Your task to perform on an android device: open app "Adobe Acrobat Reader" (install if not already installed) and go to login screen Image 0: 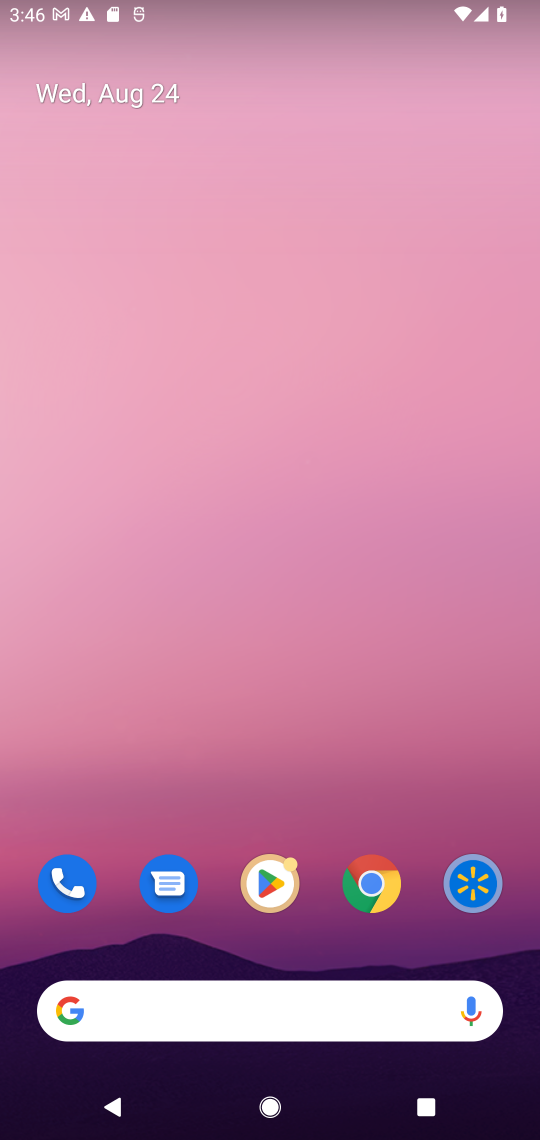
Step 0: click (225, 254)
Your task to perform on an android device: open app "Adobe Acrobat Reader" (install if not already installed) and go to login screen Image 1: 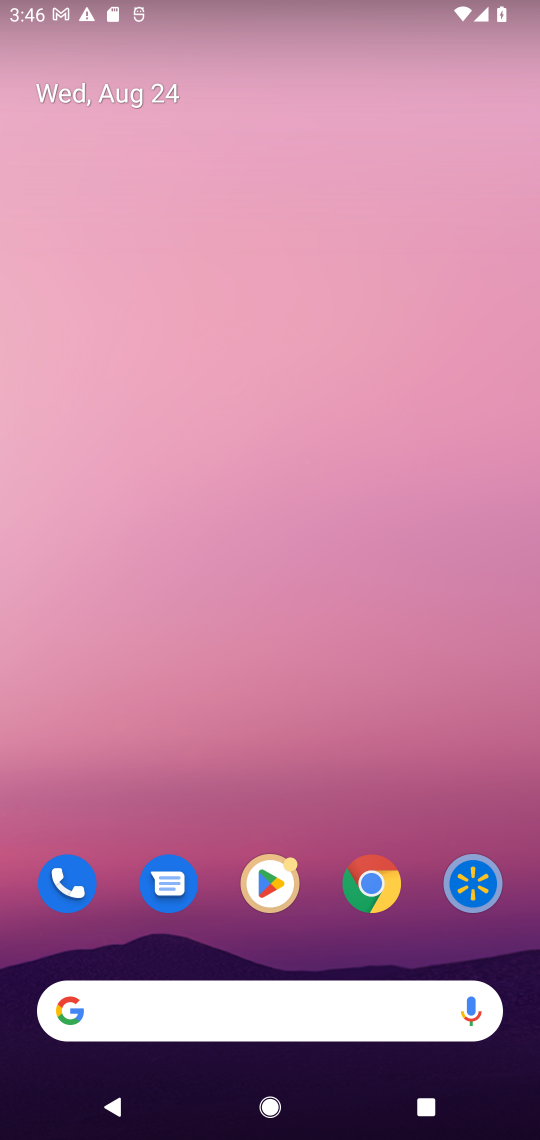
Step 1: drag from (293, 918) to (202, 82)
Your task to perform on an android device: open app "Adobe Acrobat Reader" (install if not already installed) and go to login screen Image 2: 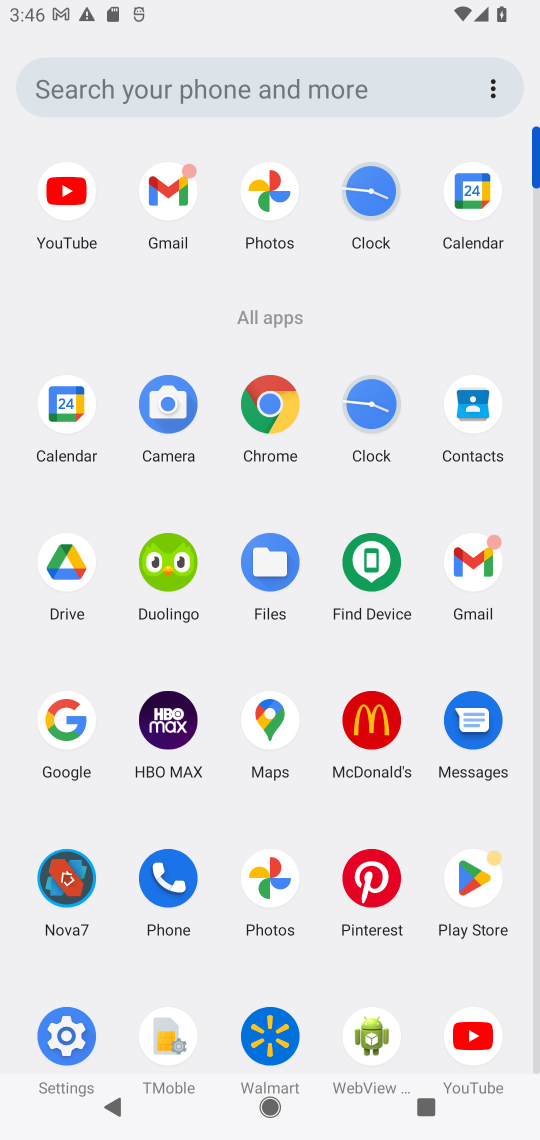
Step 2: click (466, 878)
Your task to perform on an android device: open app "Adobe Acrobat Reader" (install if not already installed) and go to login screen Image 3: 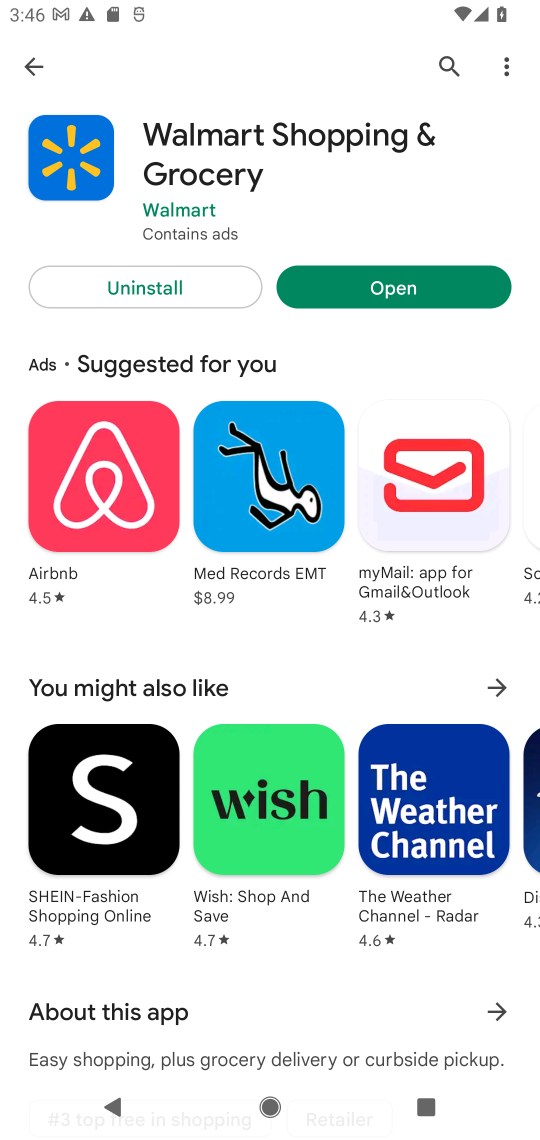
Step 3: click (443, 54)
Your task to perform on an android device: open app "Adobe Acrobat Reader" (install if not already installed) and go to login screen Image 4: 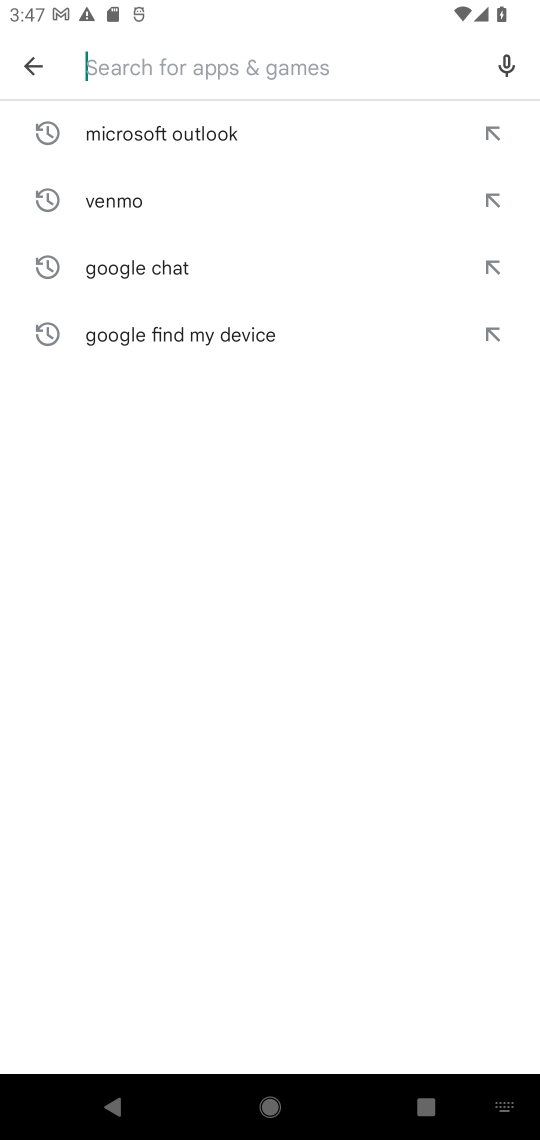
Step 4: type "Adobe Acrobat Reade"
Your task to perform on an android device: open app "Adobe Acrobat Reader" (install if not already installed) and go to login screen Image 5: 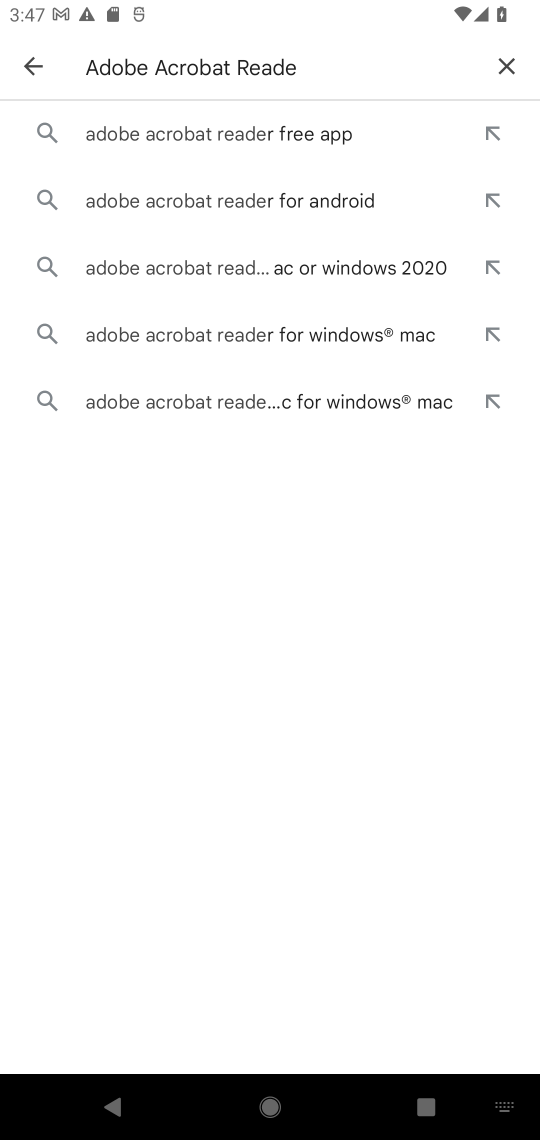
Step 5: click (139, 130)
Your task to perform on an android device: open app "Adobe Acrobat Reader" (install if not already installed) and go to login screen Image 6: 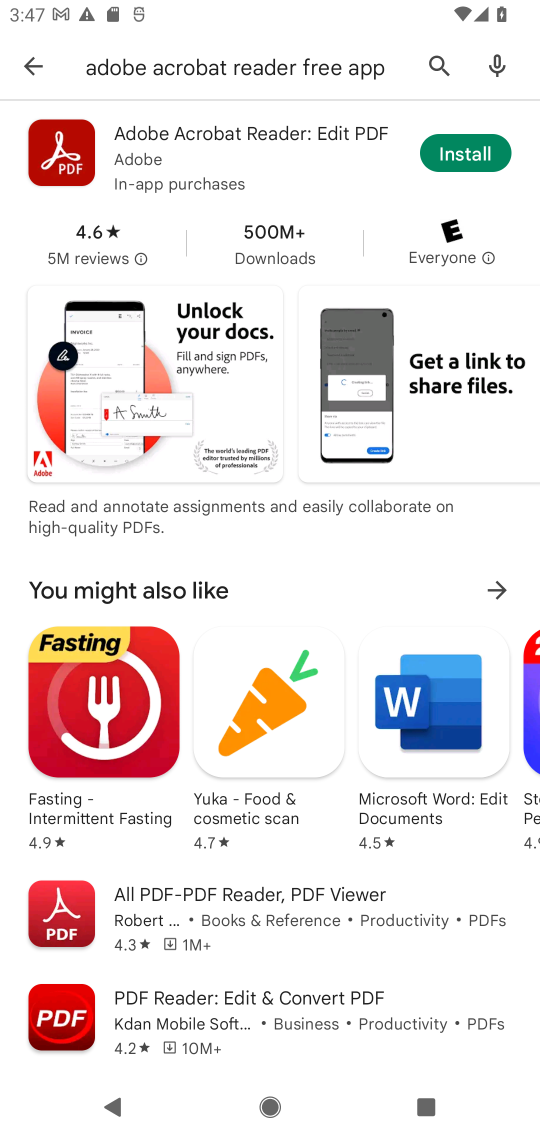
Step 6: click (440, 157)
Your task to perform on an android device: open app "Adobe Acrobat Reader" (install if not already installed) and go to login screen Image 7: 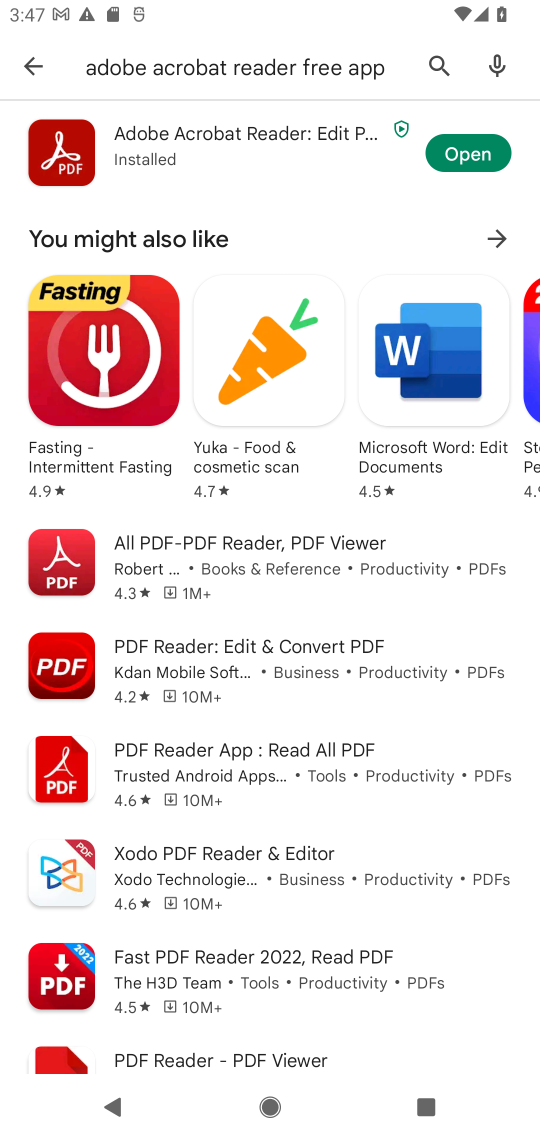
Step 7: click (445, 161)
Your task to perform on an android device: open app "Adobe Acrobat Reader" (install if not already installed) and go to login screen Image 8: 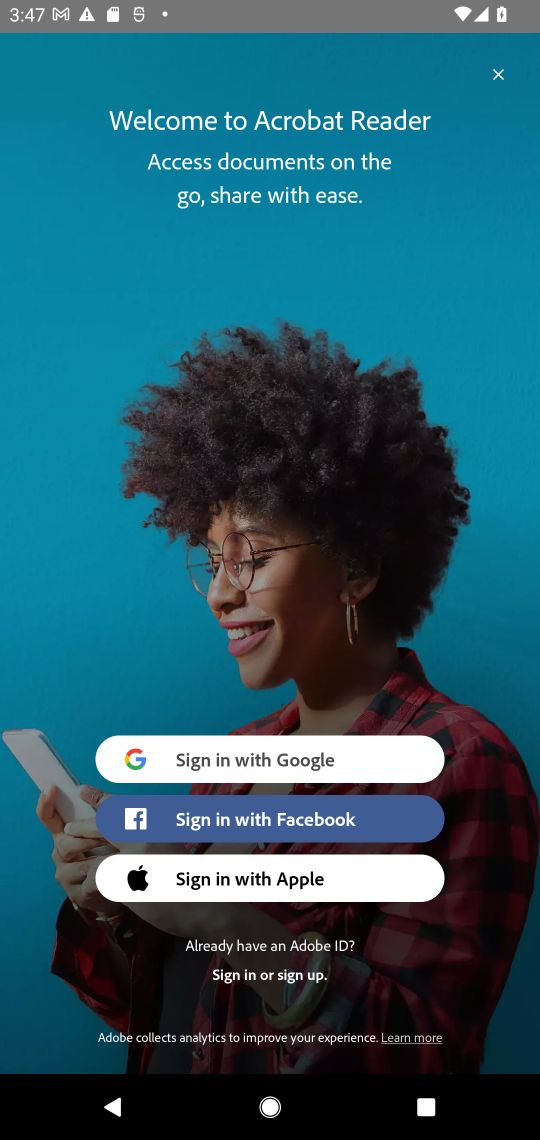
Step 8: task complete